Your task to perform on an android device: toggle javascript in the chrome app Image 0: 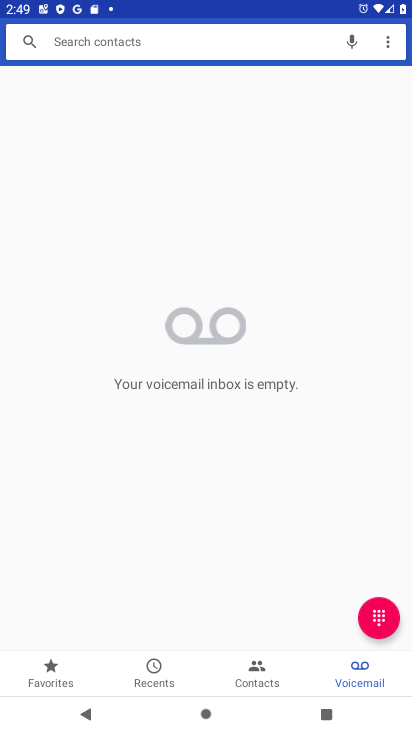
Step 0: press home button
Your task to perform on an android device: toggle javascript in the chrome app Image 1: 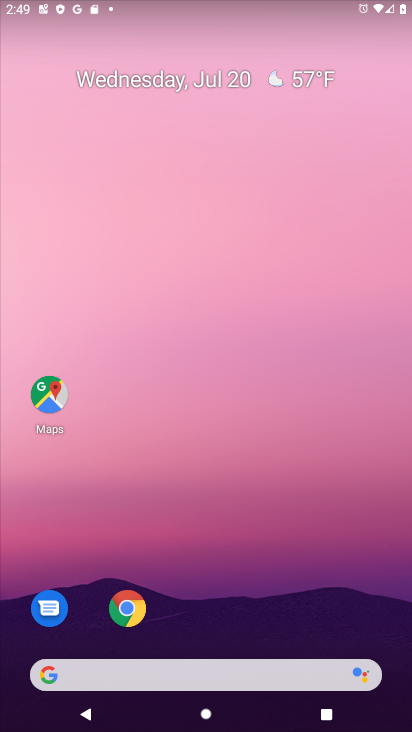
Step 1: click (123, 612)
Your task to perform on an android device: toggle javascript in the chrome app Image 2: 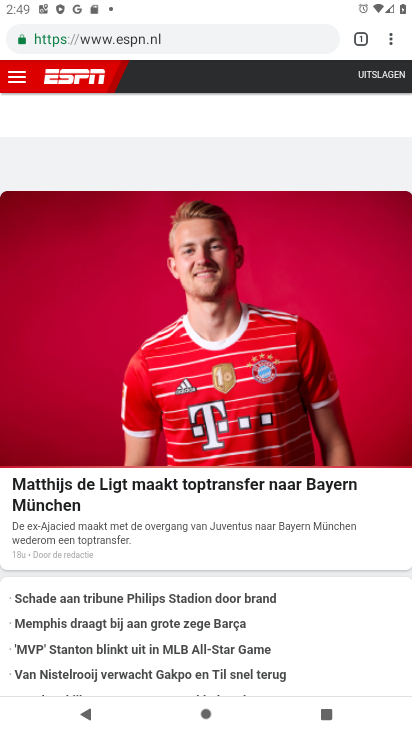
Step 2: click (388, 34)
Your task to perform on an android device: toggle javascript in the chrome app Image 3: 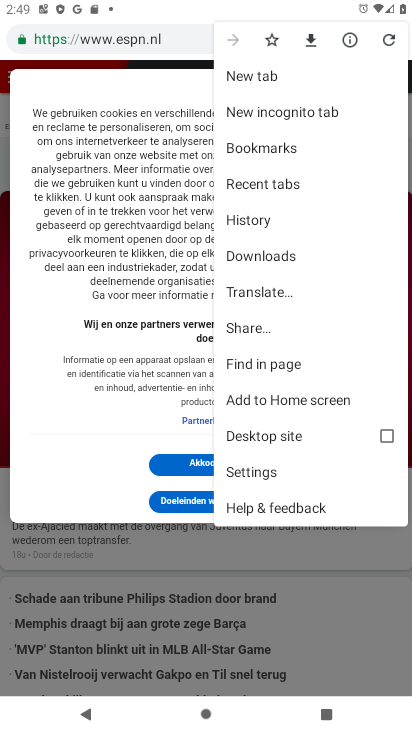
Step 3: click (236, 471)
Your task to perform on an android device: toggle javascript in the chrome app Image 4: 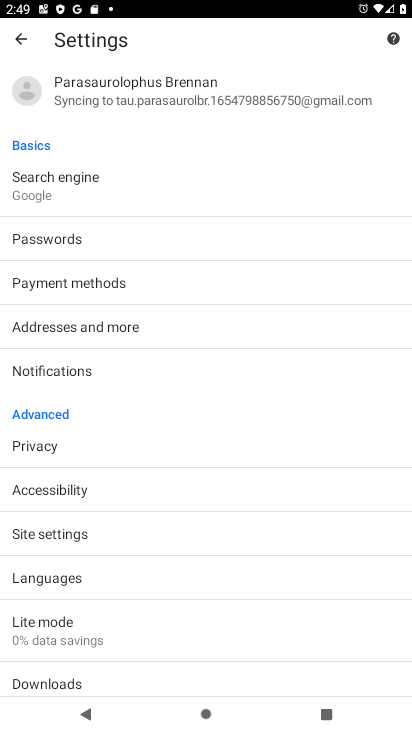
Step 4: click (66, 530)
Your task to perform on an android device: toggle javascript in the chrome app Image 5: 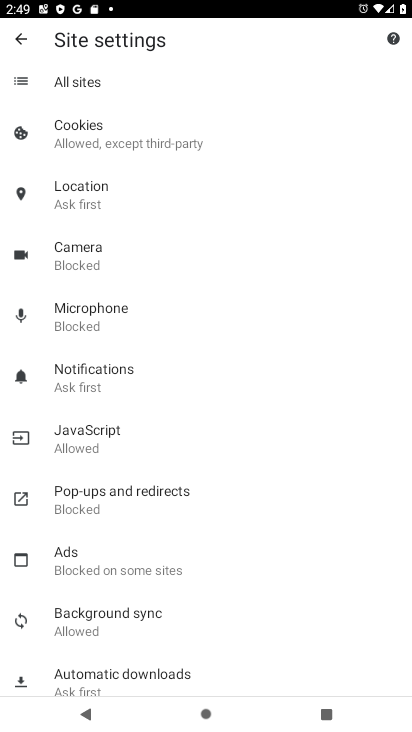
Step 5: click (114, 431)
Your task to perform on an android device: toggle javascript in the chrome app Image 6: 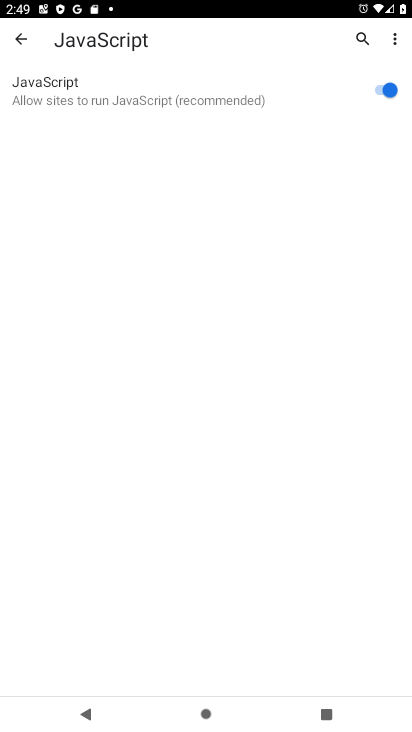
Step 6: click (384, 100)
Your task to perform on an android device: toggle javascript in the chrome app Image 7: 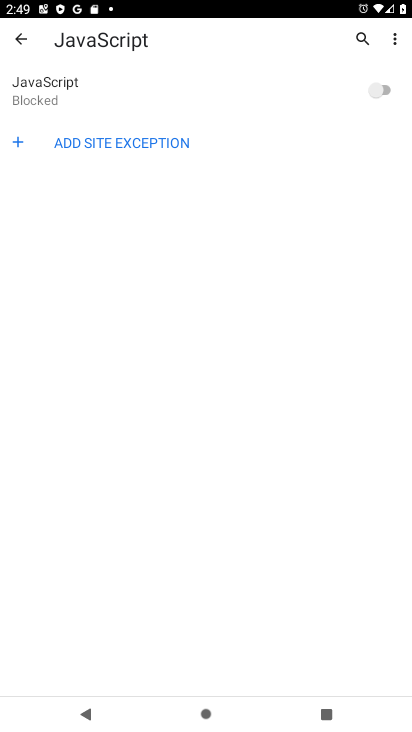
Step 7: task complete